Your task to perform on an android device: turn off location Image 0: 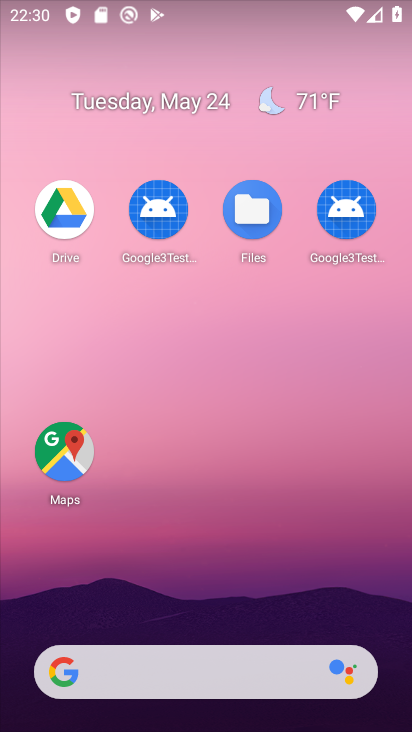
Step 0: drag from (205, 610) to (199, 15)
Your task to perform on an android device: turn off location Image 1: 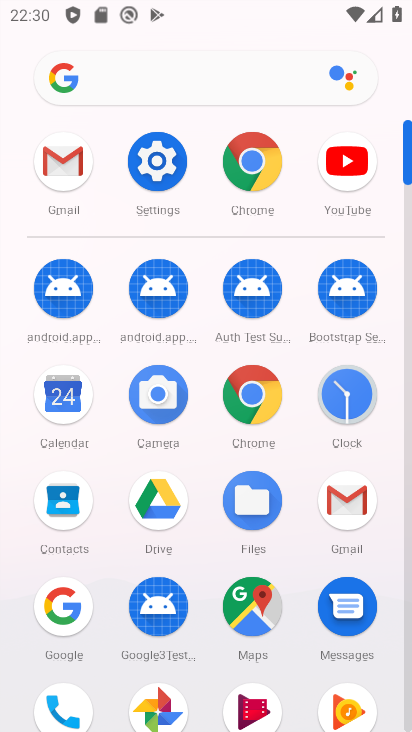
Step 1: click (137, 177)
Your task to perform on an android device: turn off location Image 2: 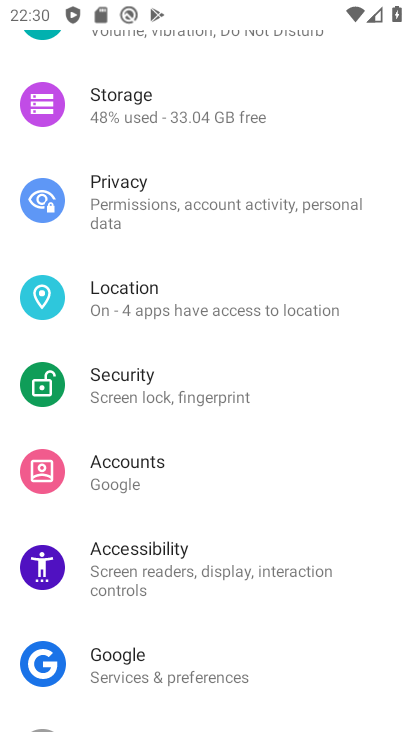
Step 2: drag from (137, 181) to (146, 349)
Your task to perform on an android device: turn off location Image 3: 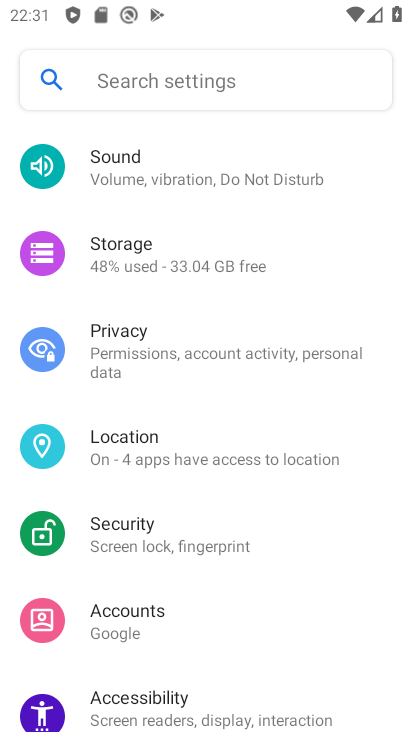
Step 3: click (114, 448)
Your task to perform on an android device: turn off location Image 4: 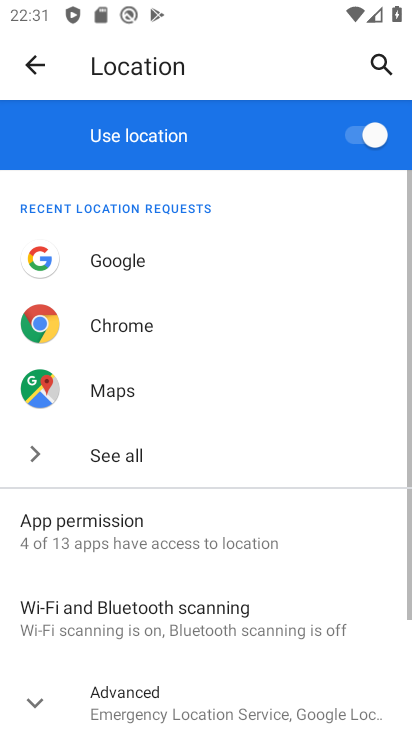
Step 4: click (372, 143)
Your task to perform on an android device: turn off location Image 5: 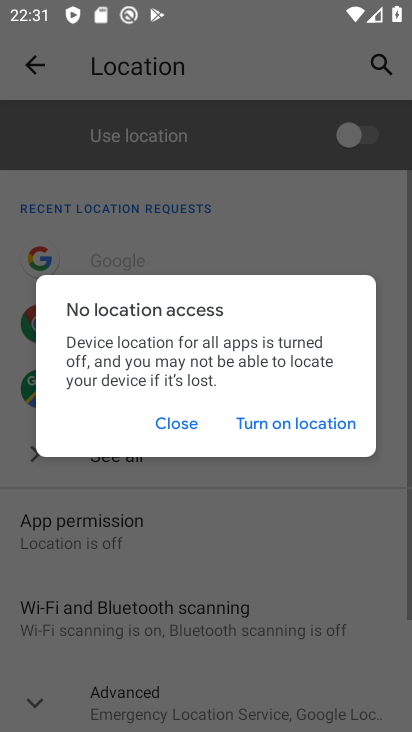
Step 5: task complete